Your task to perform on an android device: Open calendar and show me the first week of next month Image 0: 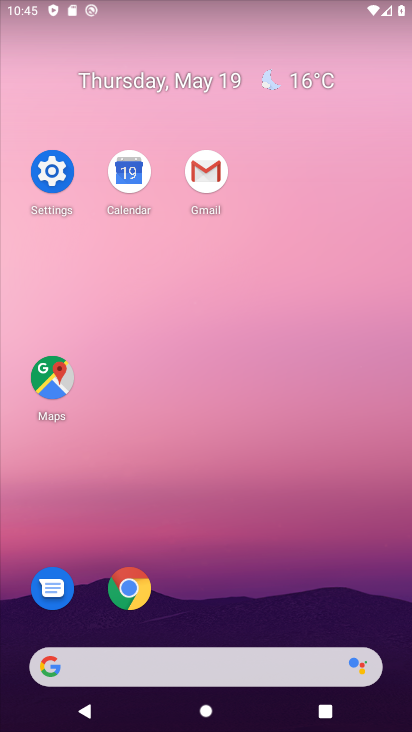
Step 0: click (117, 164)
Your task to perform on an android device: Open calendar and show me the first week of next month Image 1: 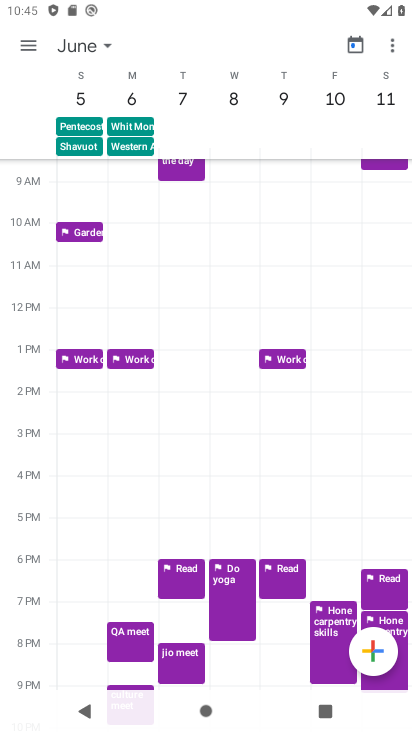
Step 1: task complete